Your task to perform on an android device: Go to Yahoo.com Image 0: 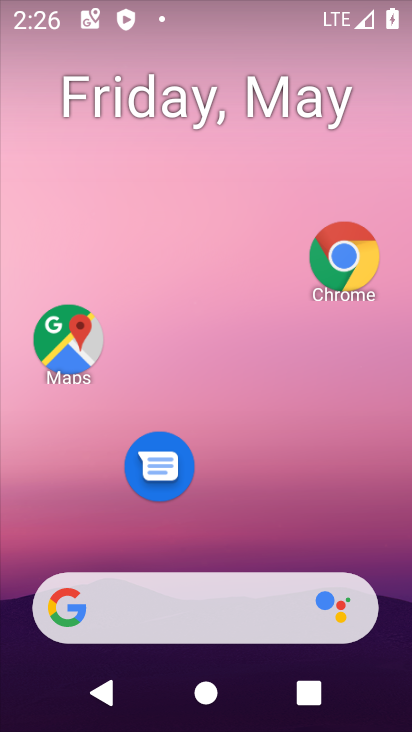
Step 0: click (344, 250)
Your task to perform on an android device: Go to Yahoo.com Image 1: 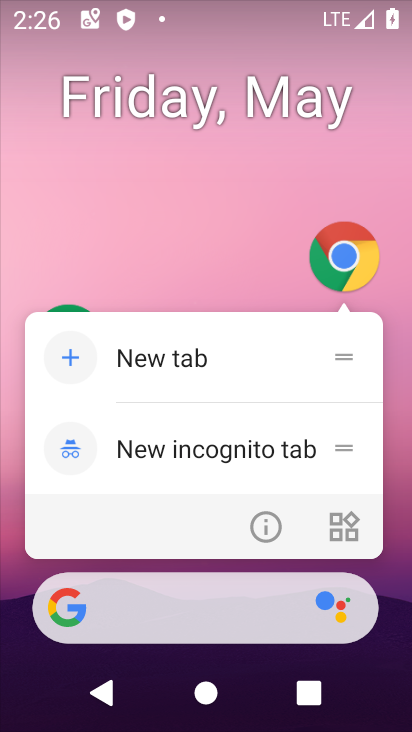
Step 1: click (139, 259)
Your task to perform on an android device: Go to Yahoo.com Image 2: 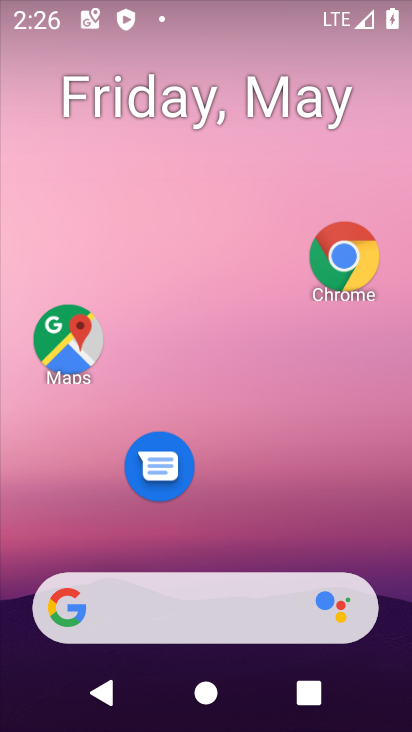
Step 2: drag from (297, 511) to (266, 73)
Your task to perform on an android device: Go to Yahoo.com Image 3: 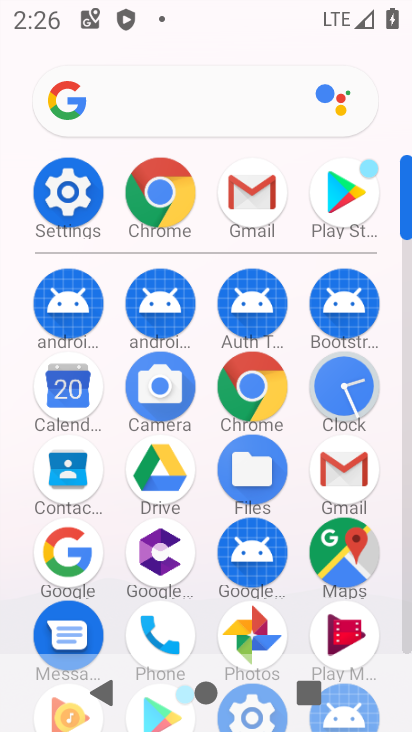
Step 3: click (247, 386)
Your task to perform on an android device: Go to Yahoo.com Image 4: 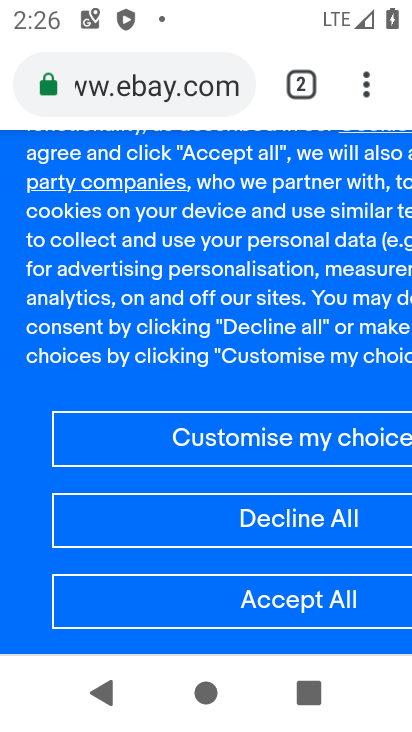
Step 4: click (158, 84)
Your task to perform on an android device: Go to Yahoo.com Image 5: 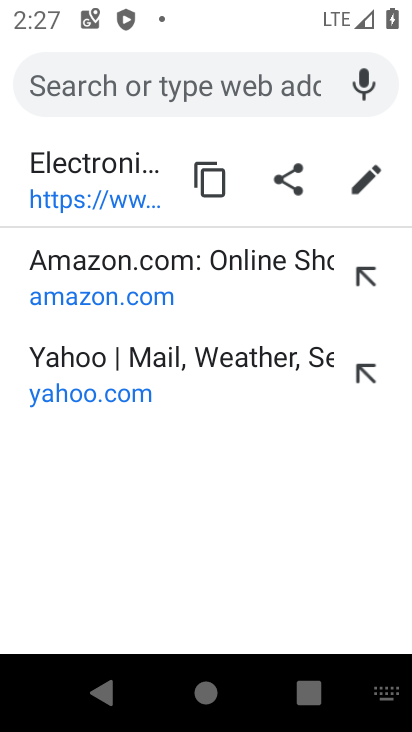
Step 5: type " Yahoo.com"
Your task to perform on an android device: Go to Yahoo.com Image 6: 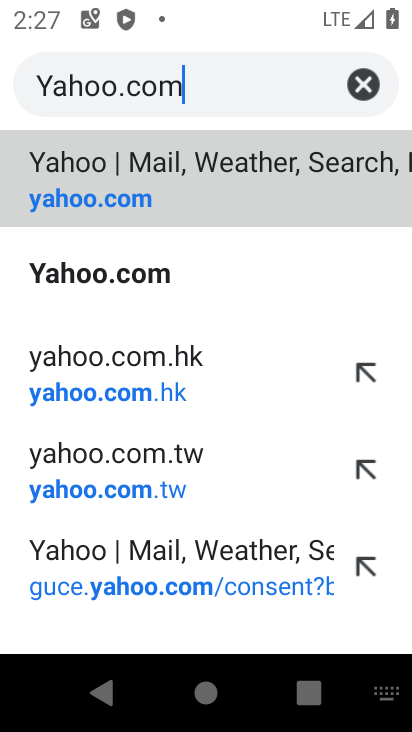
Step 6: click (71, 194)
Your task to perform on an android device: Go to Yahoo.com Image 7: 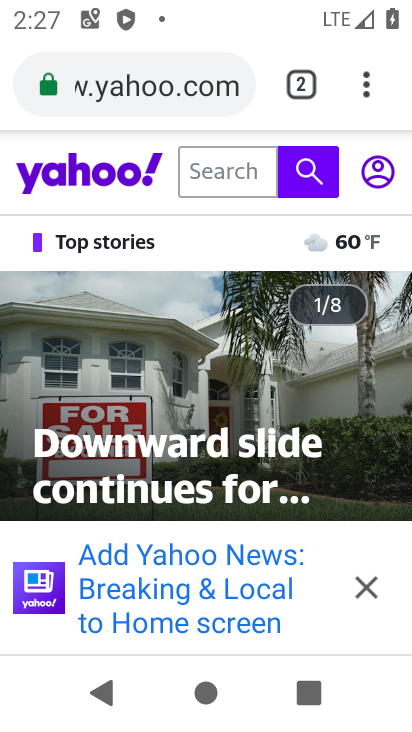
Step 7: task complete